Your task to perform on an android device: Open Google Image 0: 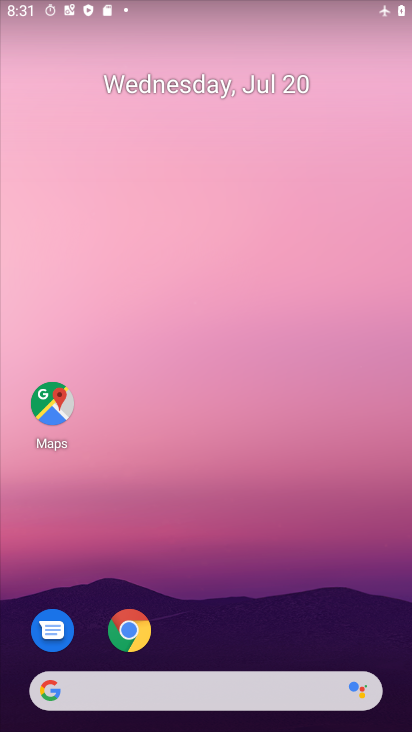
Step 0: drag from (287, 628) to (300, 79)
Your task to perform on an android device: Open Google Image 1: 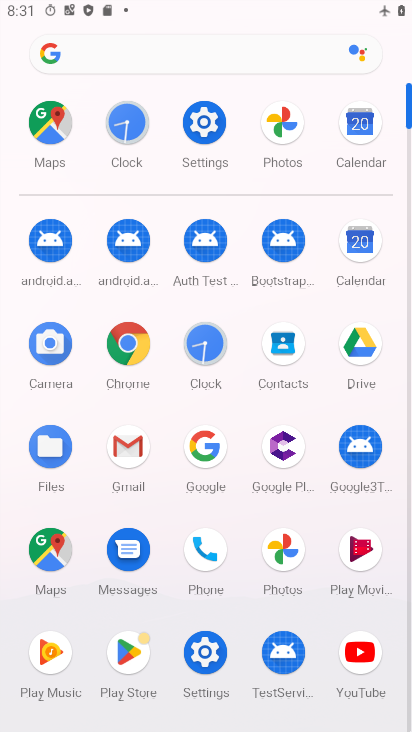
Step 1: click (200, 461)
Your task to perform on an android device: Open Google Image 2: 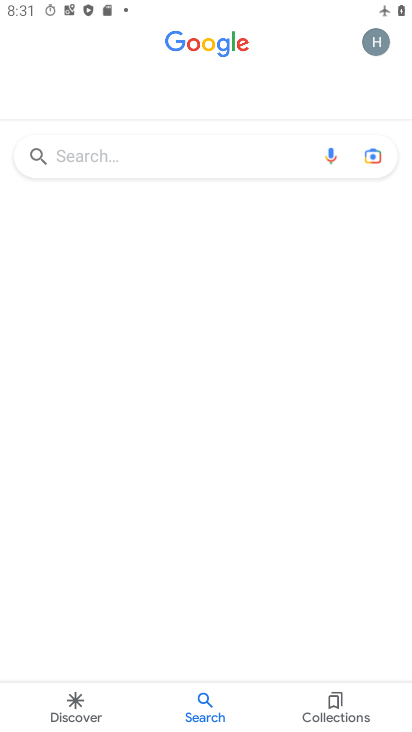
Step 2: task complete